Your task to perform on an android device: Open Android settings Image 0: 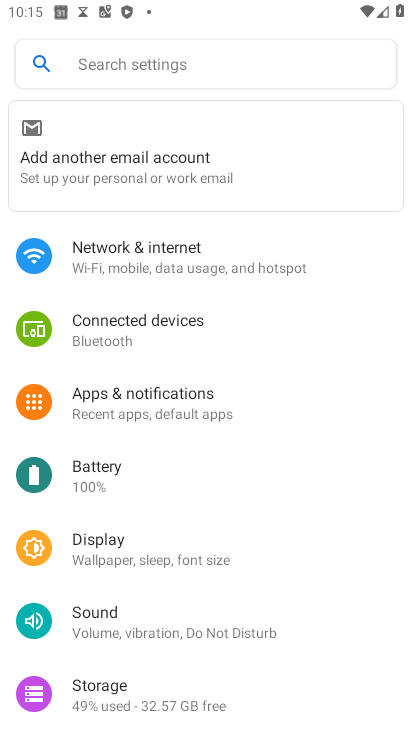
Step 0: drag from (189, 601) to (190, 274)
Your task to perform on an android device: Open Android settings Image 1: 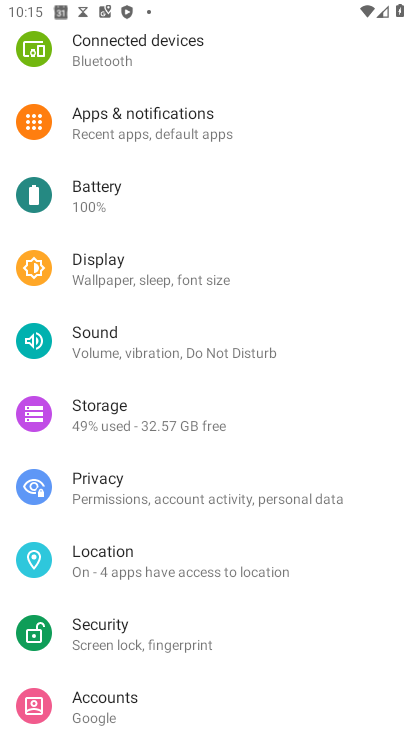
Step 1: drag from (259, 661) to (296, 654)
Your task to perform on an android device: Open Android settings Image 2: 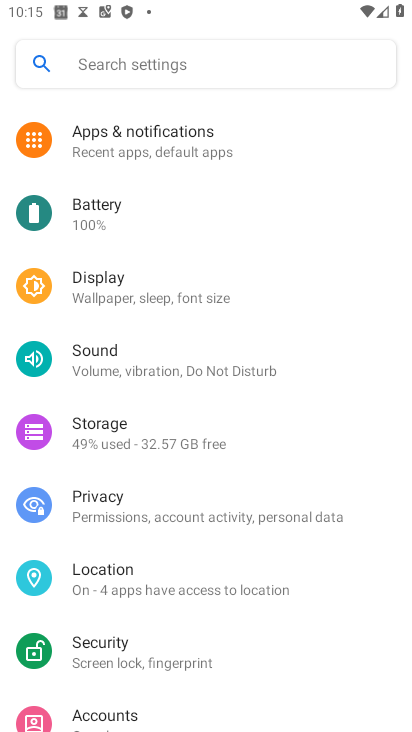
Step 2: drag from (259, 249) to (295, 518)
Your task to perform on an android device: Open Android settings Image 3: 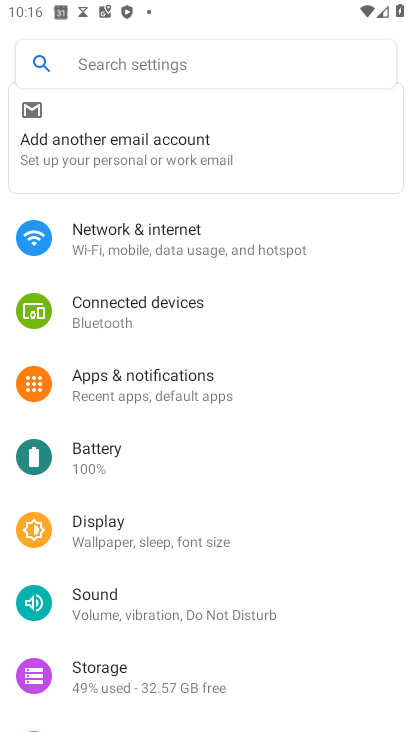
Step 3: drag from (223, 637) to (227, 317)
Your task to perform on an android device: Open Android settings Image 4: 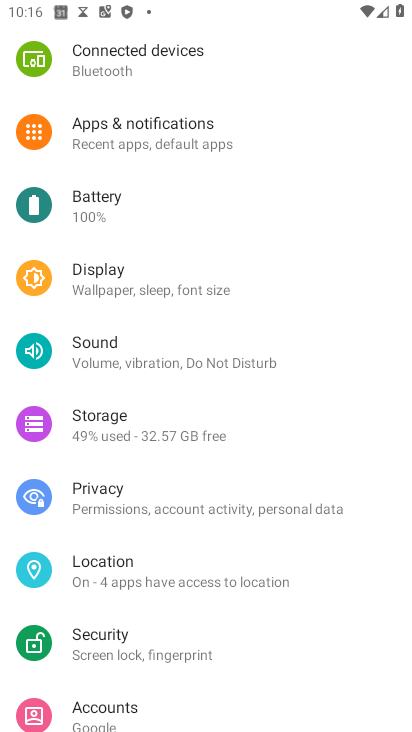
Step 4: drag from (198, 648) to (232, 198)
Your task to perform on an android device: Open Android settings Image 5: 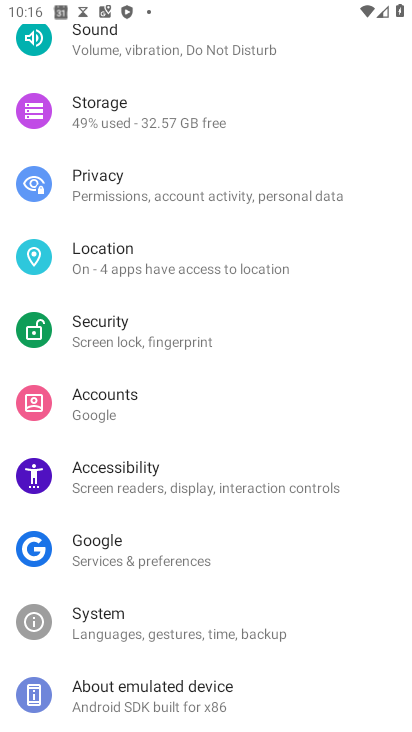
Step 5: drag from (254, 510) to (252, 187)
Your task to perform on an android device: Open Android settings Image 6: 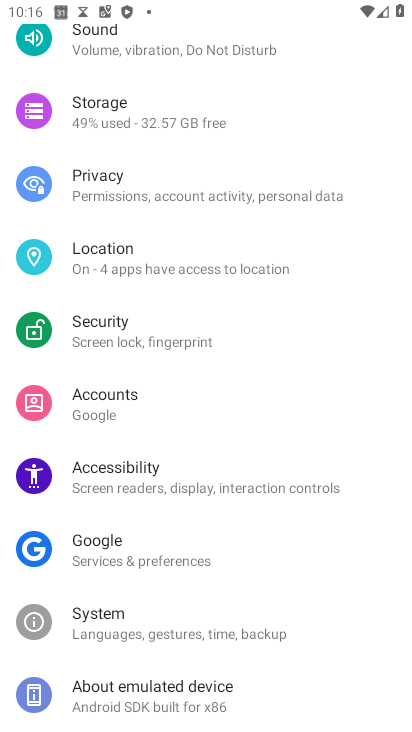
Step 6: click (199, 687)
Your task to perform on an android device: Open Android settings Image 7: 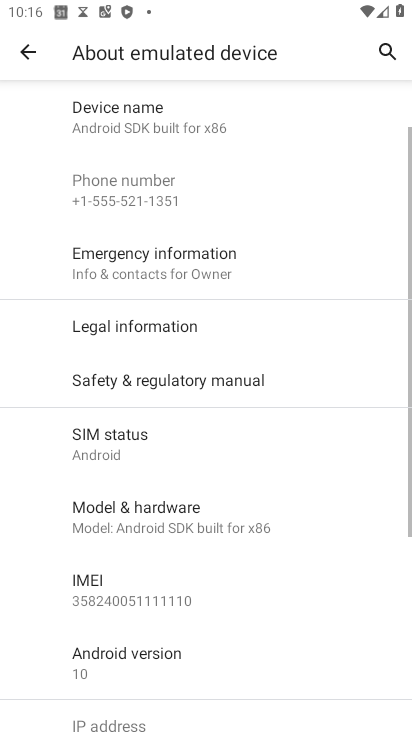
Step 7: click (215, 655)
Your task to perform on an android device: Open Android settings Image 8: 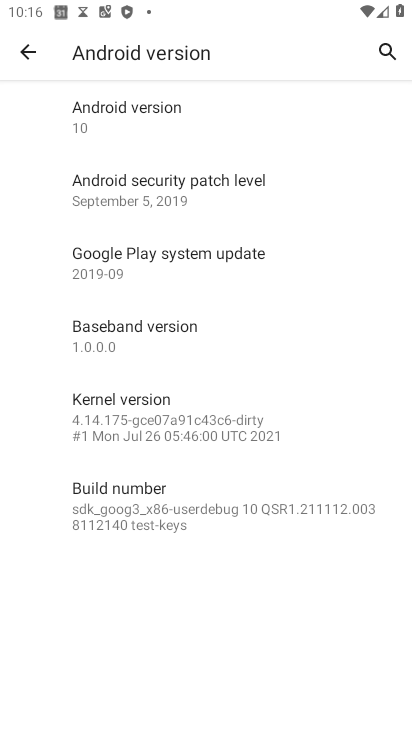
Step 8: task complete